Your task to perform on an android device: Clear the shopping cart on amazon.com. Add "asus rog" to the cart on amazon.com Image 0: 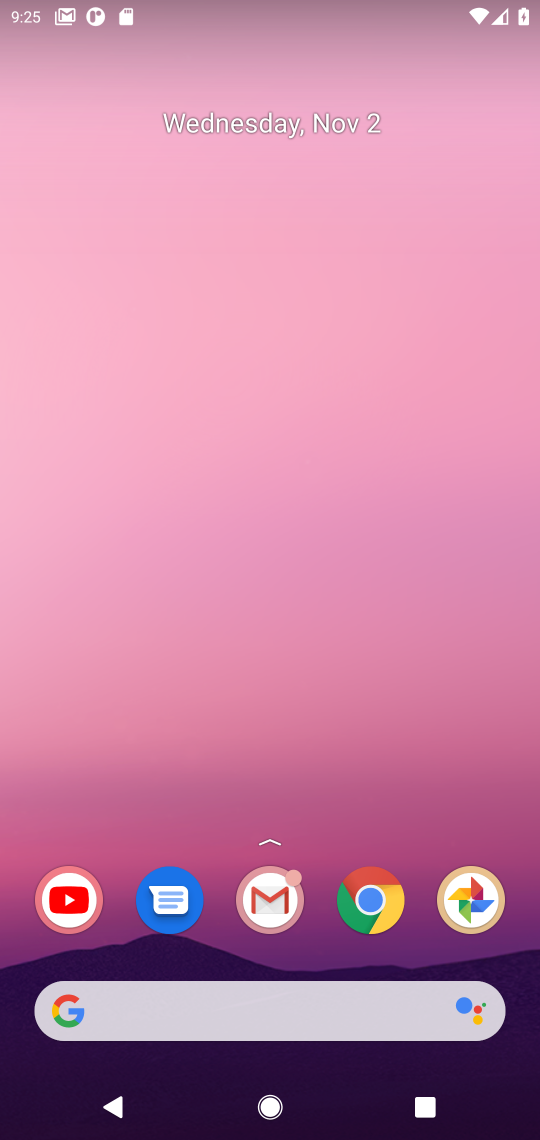
Step 0: click (371, 912)
Your task to perform on an android device: Clear the shopping cart on amazon.com. Add "asus rog" to the cart on amazon.com Image 1: 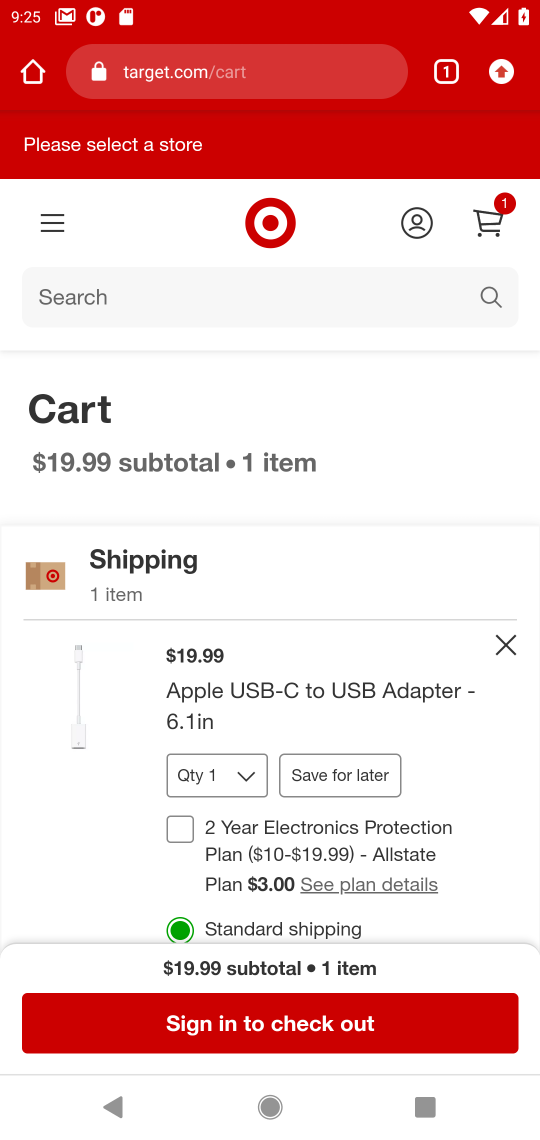
Step 1: click (232, 61)
Your task to perform on an android device: Clear the shopping cart on amazon.com. Add "asus rog" to the cart on amazon.com Image 2: 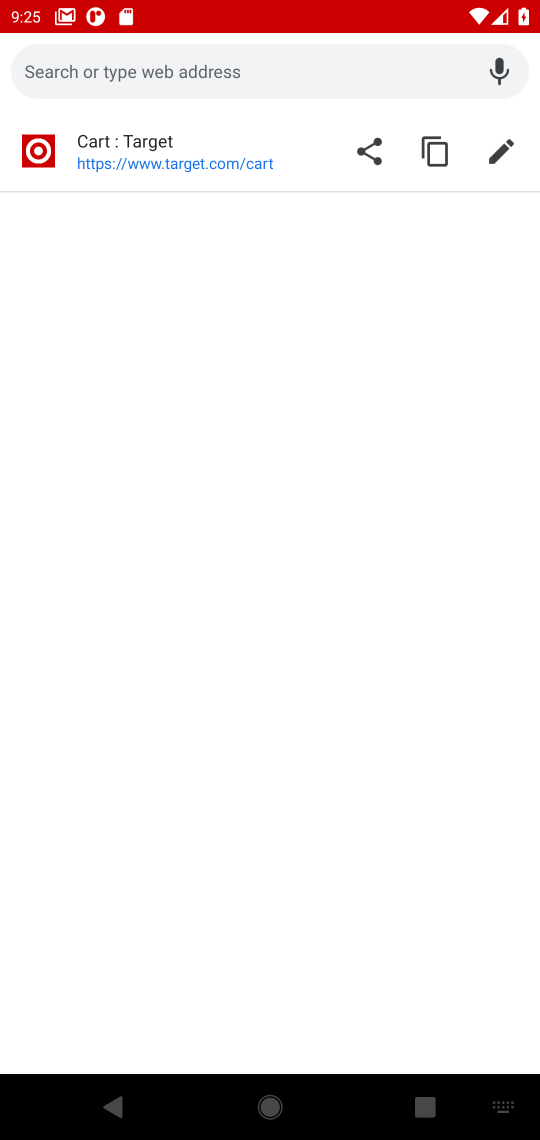
Step 2: type "amazon"
Your task to perform on an android device: Clear the shopping cart on amazon.com. Add "asus rog" to the cart on amazon.com Image 3: 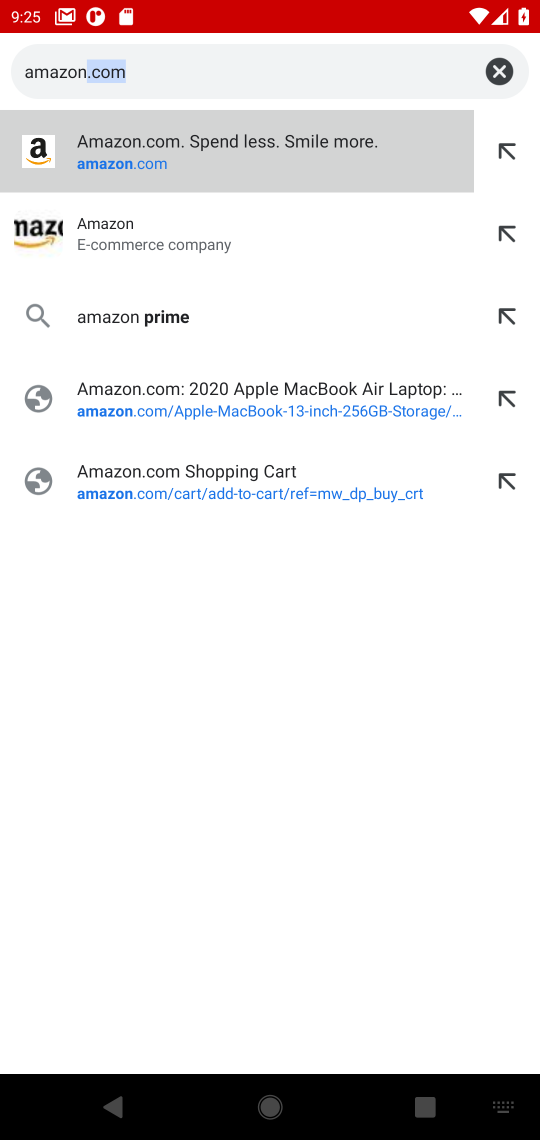
Step 3: click (212, 231)
Your task to perform on an android device: Clear the shopping cart on amazon.com. Add "asus rog" to the cart on amazon.com Image 4: 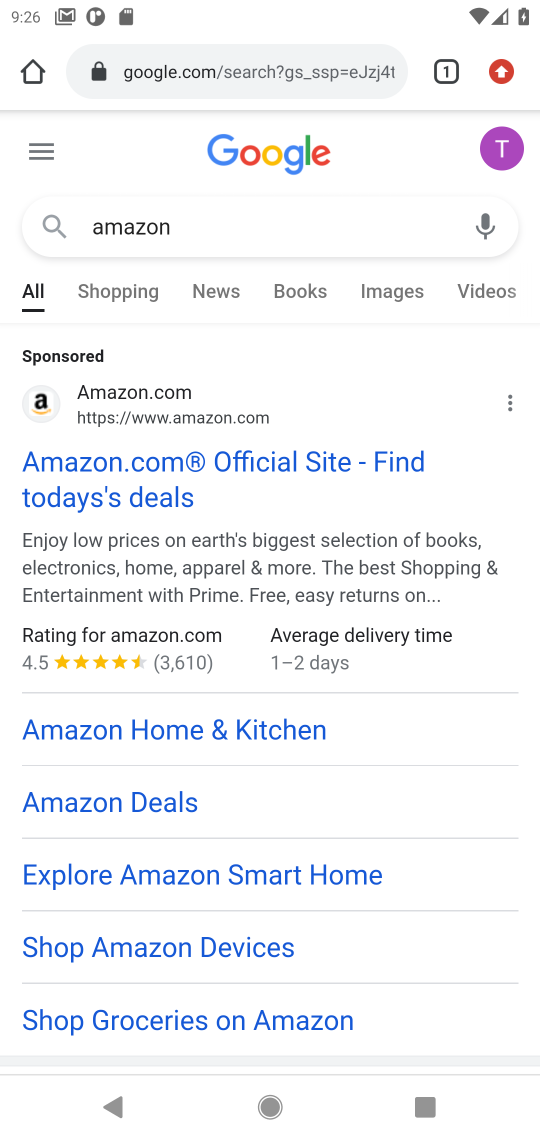
Step 4: click (169, 481)
Your task to perform on an android device: Clear the shopping cart on amazon.com. Add "asus rog" to the cart on amazon.com Image 5: 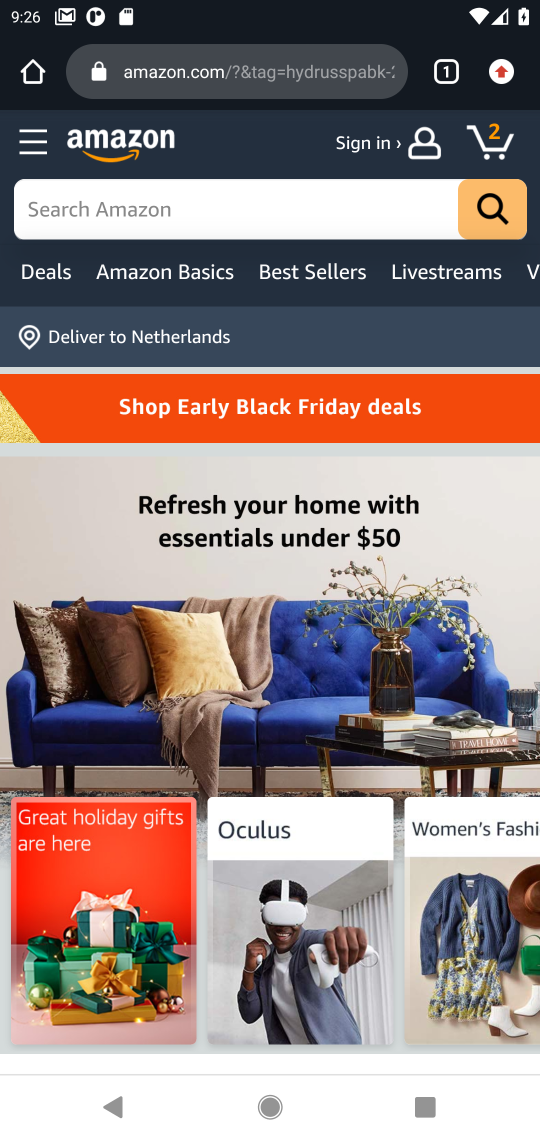
Step 5: click (493, 140)
Your task to perform on an android device: Clear the shopping cart on amazon.com. Add "asus rog" to the cart on amazon.com Image 6: 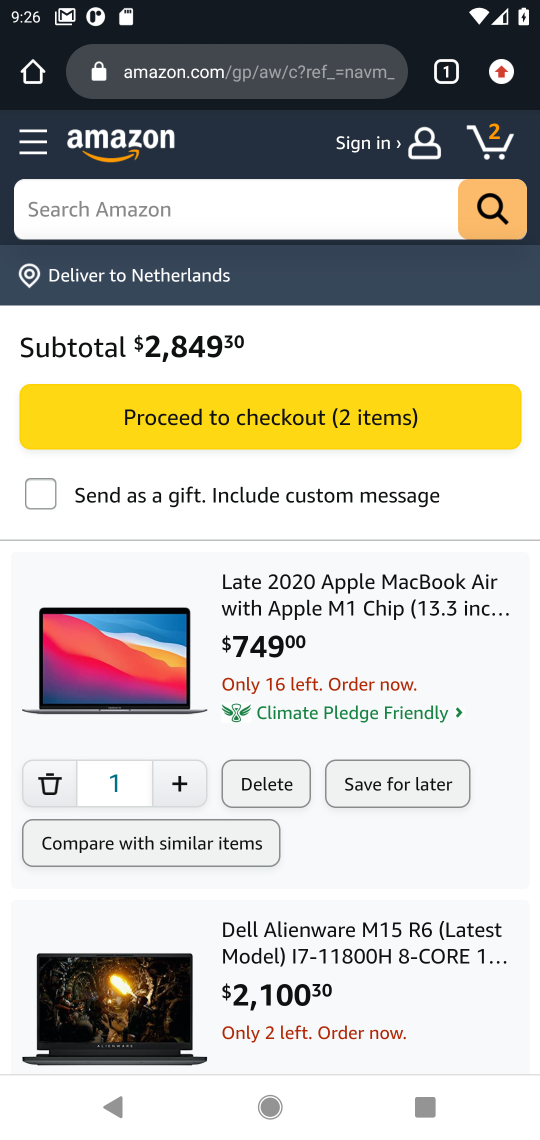
Step 6: click (280, 775)
Your task to perform on an android device: Clear the shopping cart on amazon.com. Add "asus rog" to the cart on amazon.com Image 7: 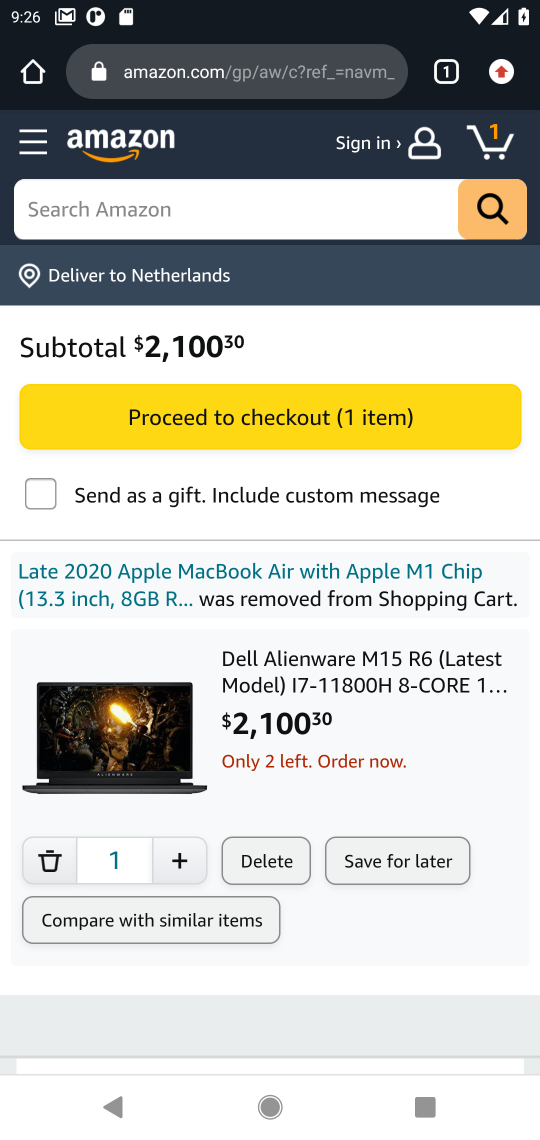
Step 7: click (266, 852)
Your task to perform on an android device: Clear the shopping cart on amazon.com. Add "asus rog" to the cart on amazon.com Image 8: 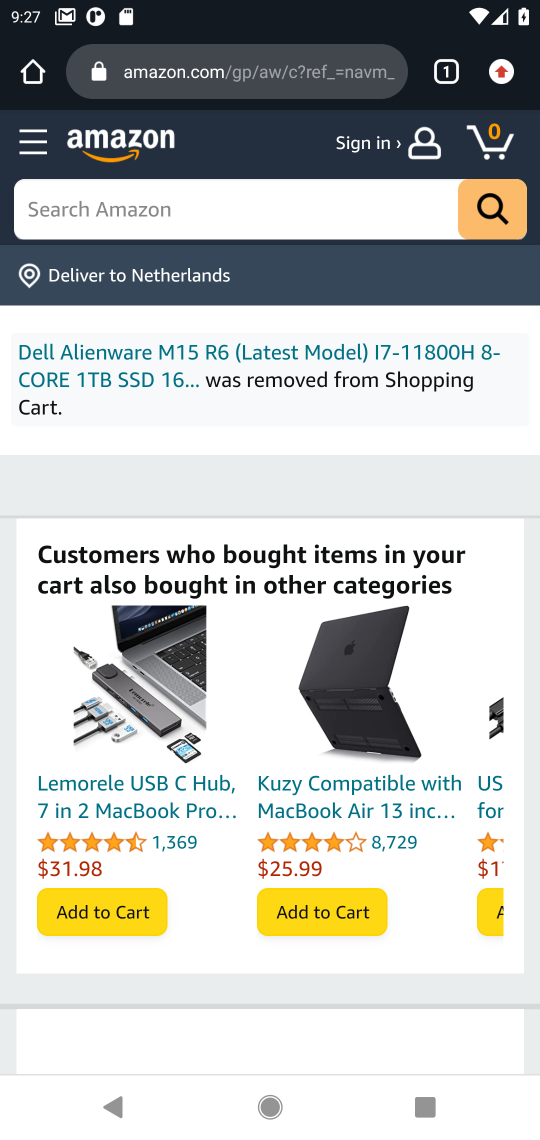
Step 8: click (311, 225)
Your task to perform on an android device: Clear the shopping cart on amazon.com. Add "asus rog" to the cart on amazon.com Image 9: 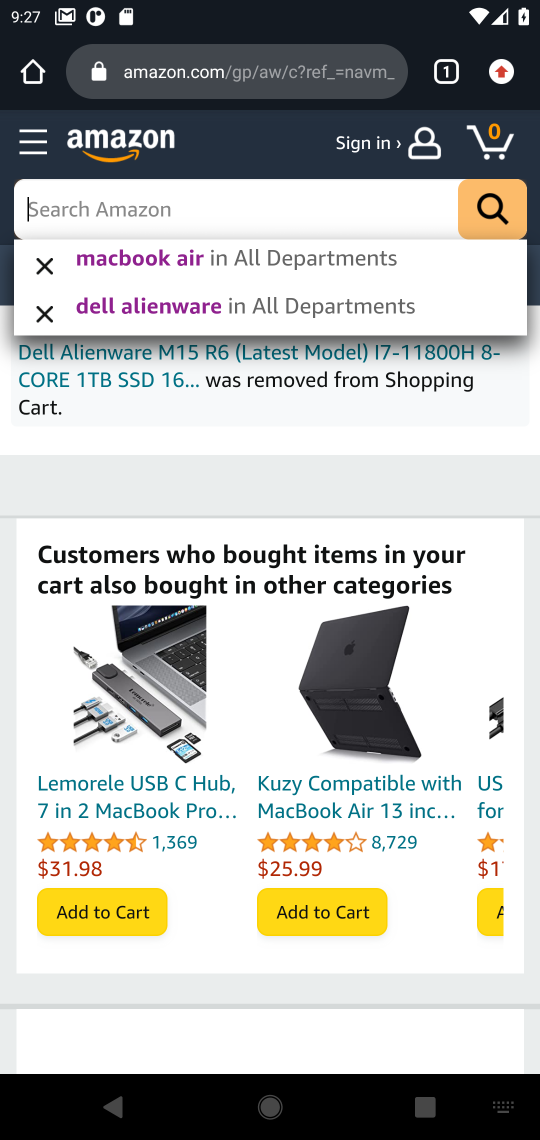
Step 9: type "asus rog"
Your task to perform on an android device: Clear the shopping cart on amazon.com. Add "asus rog" to the cart on amazon.com Image 10: 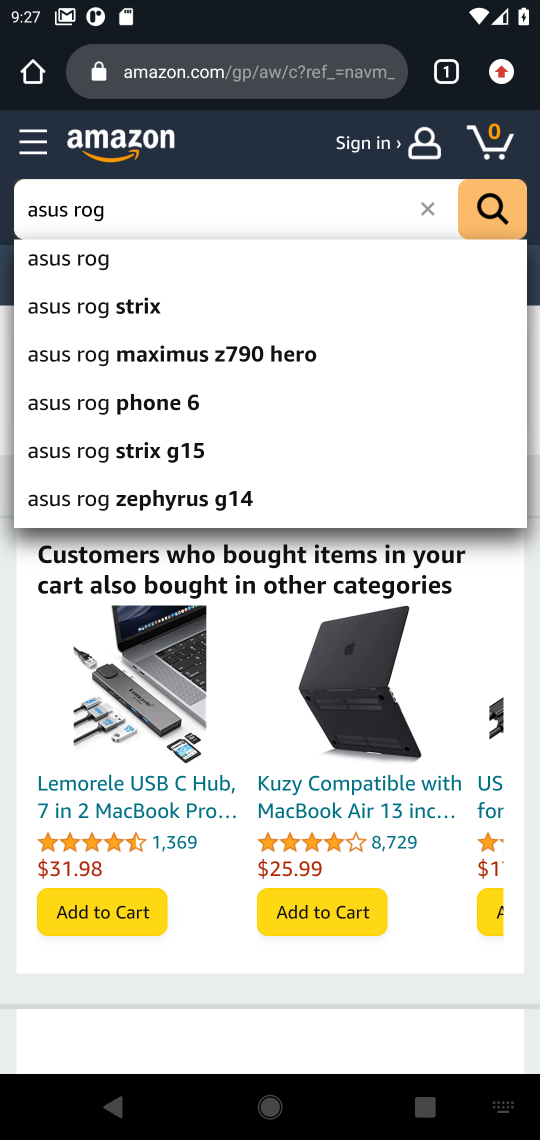
Step 10: click (518, 219)
Your task to perform on an android device: Clear the shopping cart on amazon.com. Add "asus rog" to the cart on amazon.com Image 11: 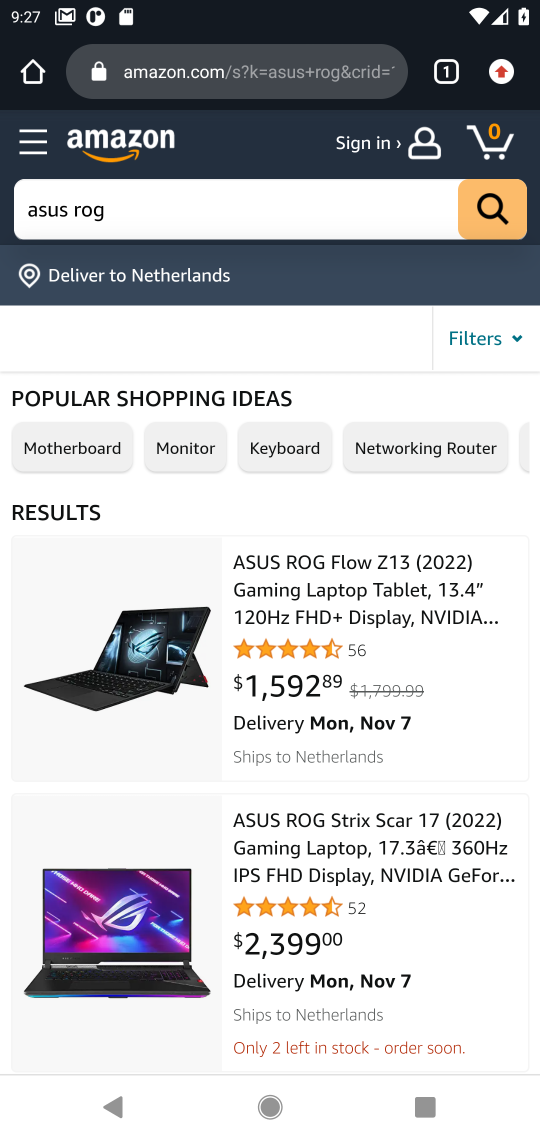
Step 11: click (286, 607)
Your task to perform on an android device: Clear the shopping cart on amazon.com. Add "asus rog" to the cart on amazon.com Image 12: 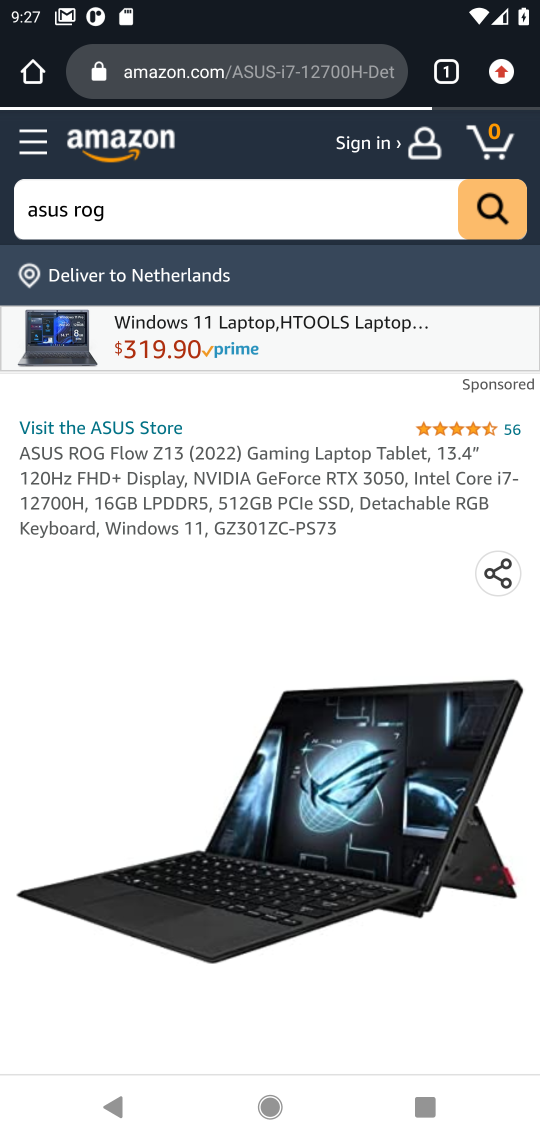
Step 12: drag from (280, 990) to (280, 181)
Your task to perform on an android device: Clear the shopping cart on amazon.com. Add "asus rog" to the cart on amazon.com Image 13: 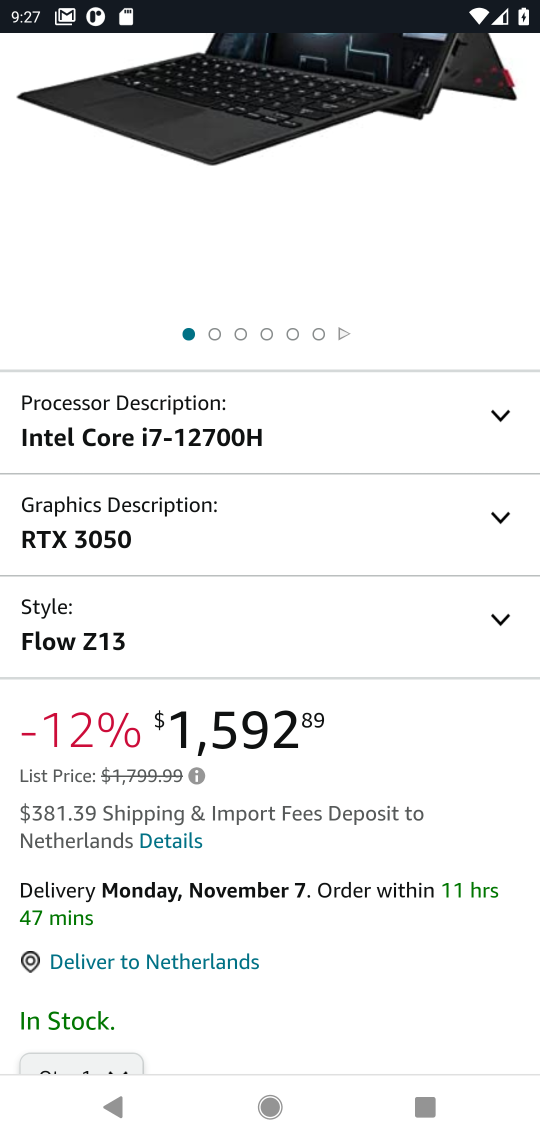
Step 13: drag from (182, 998) to (258, 88)
Your task to perform on an android device: Clear the shopping cart on amazon.com. Add "asus rog" to the cart on amazon.com Image 14: 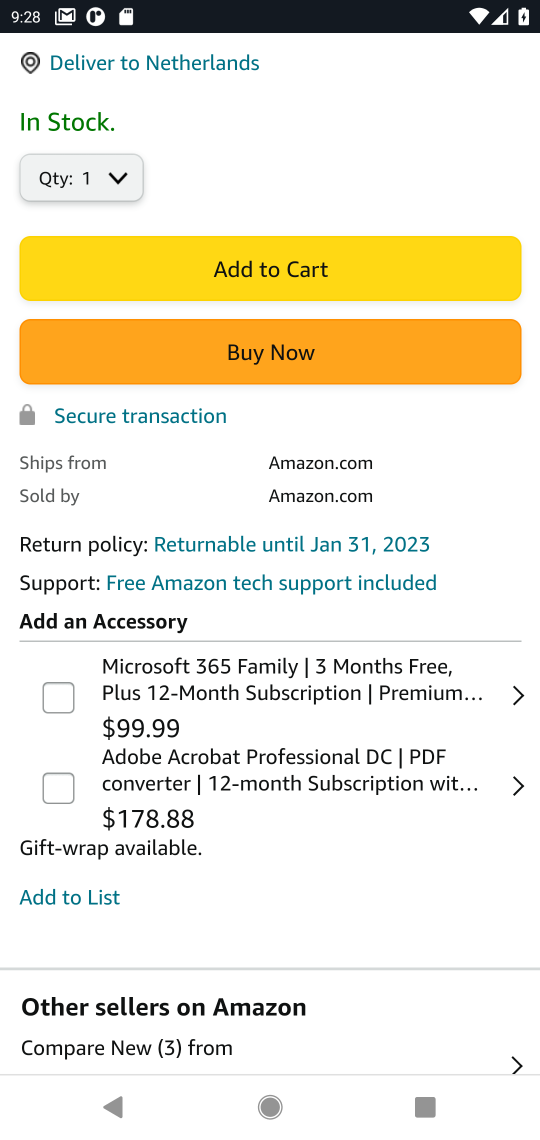
Step 14: click (224, 258)
Your task to perform on an android device: Clear the shopping cart on amazon.com. Add "asus rog" to the cart on amazon.com Image 15: 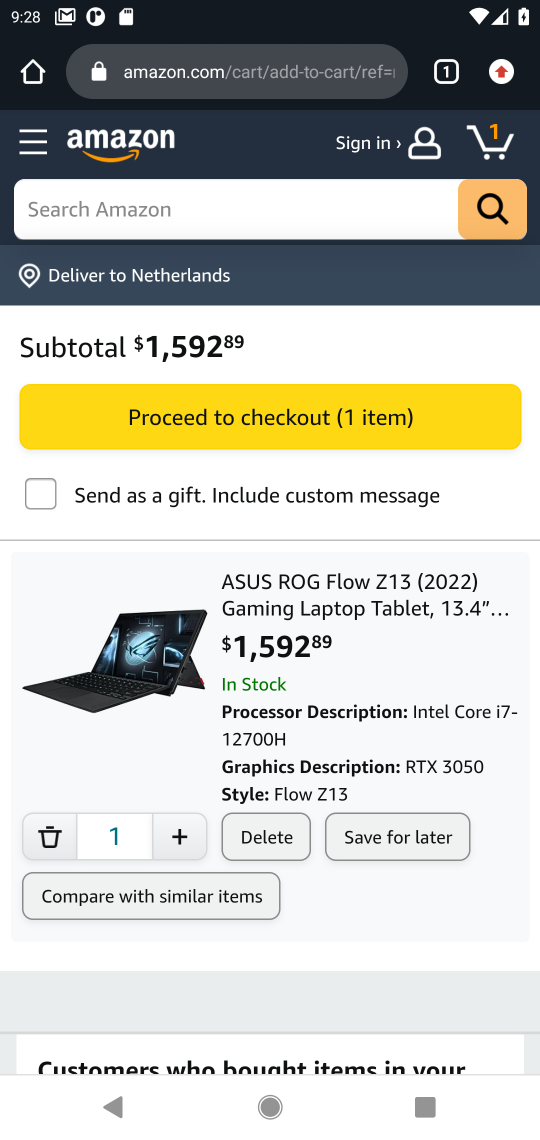
Step 15: task complete